Your task to perform on an android device: Go to settings Image 0: 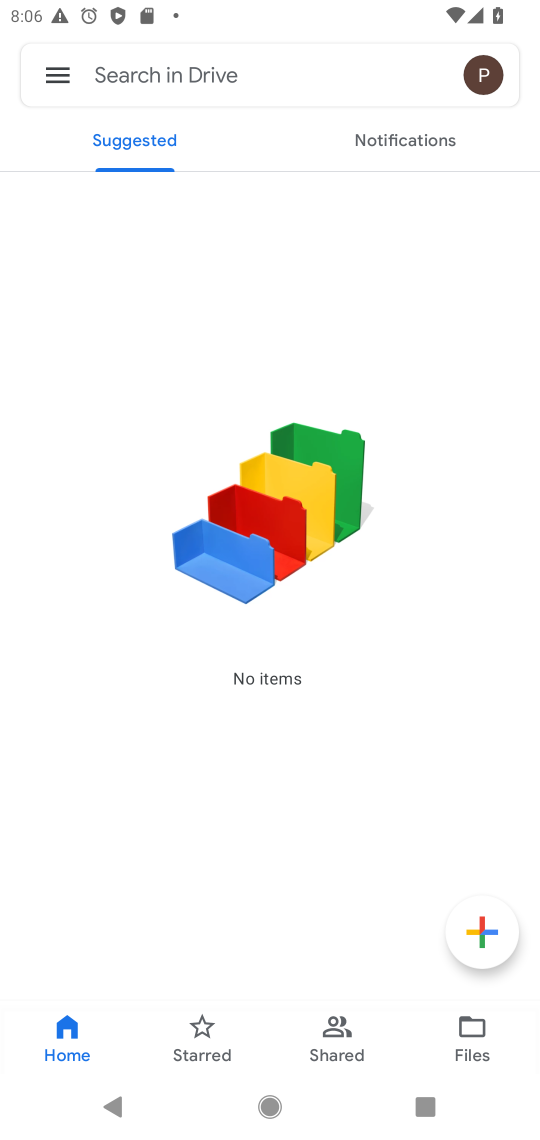
Step 0: press home button
Your task to perform on an android device: Go to settings Image 1: 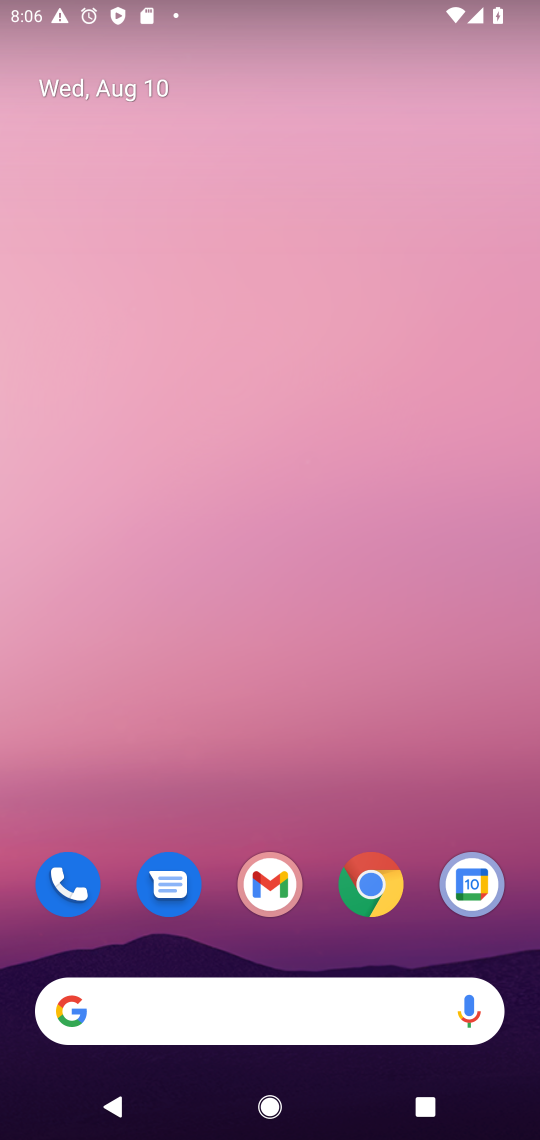
Step 1: drag from (9, 1082) to (261, 259)
Your task to perform on an android device: Go to settings Image 2: 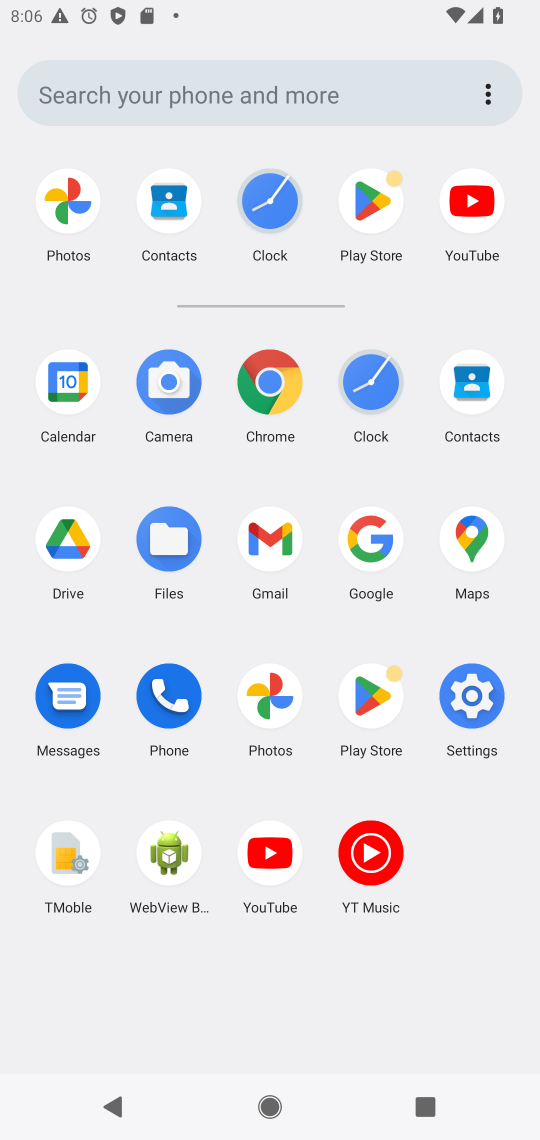
Step 2: click (484, 706)
Your task to perform on an android device: Go to settings Image 3: 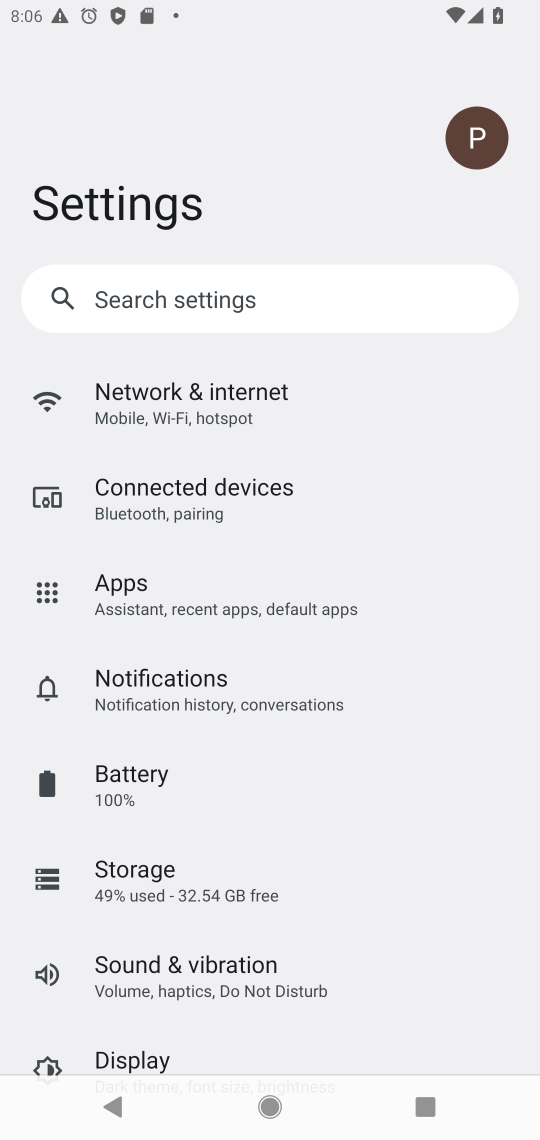
Step 3: task complete